Your task to perform on an android device: Go to ESPN.com Image 0: 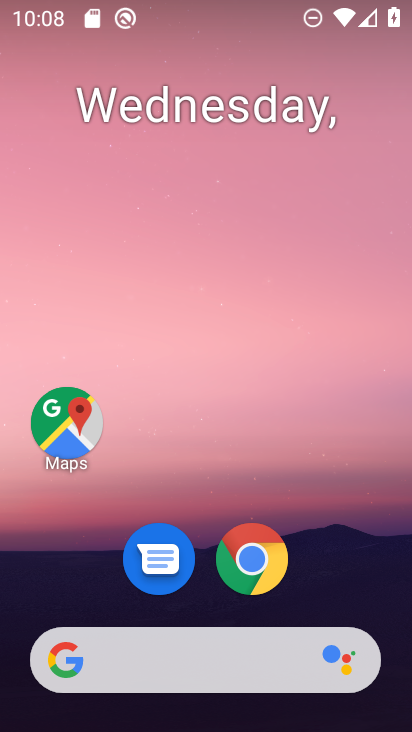
Step 0: drag from (377, 576) to (358, 205)
Your task to perform on an android device: Go to ESPN.com Image 1: 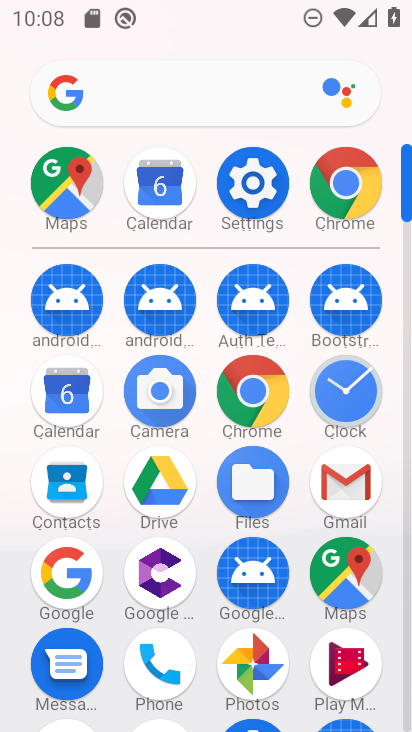
Step 1: click (266, 388)
Your task to perform on an android device: Go to ESPN.com Image 2: 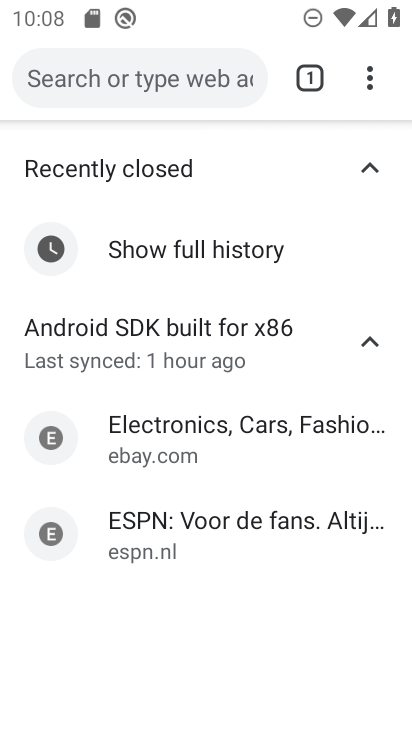
Step 2: click (195, 99)
Your task to perform on an android device: Go to ESPN.com Image 3: 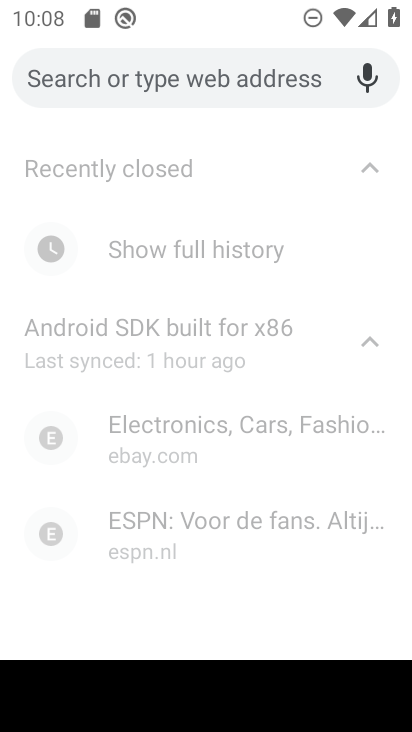
Step 3: type "espn.com"
Your task to perform on an android device: Go to ESPN.com Image 4: 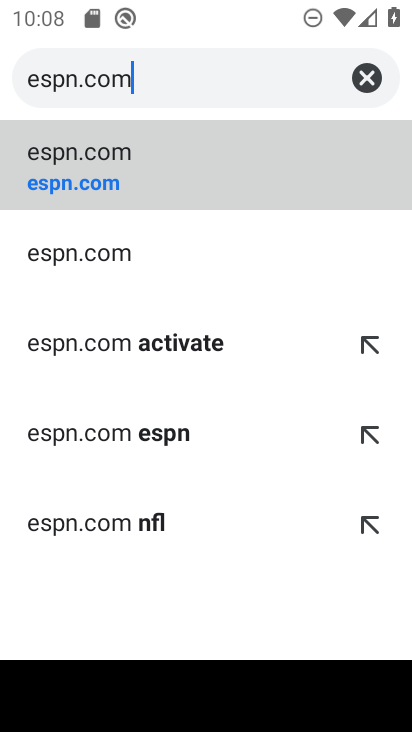
Step 4: click (250, 187)
Your task to perform on an android device: Go to ESPN.com Image 5: 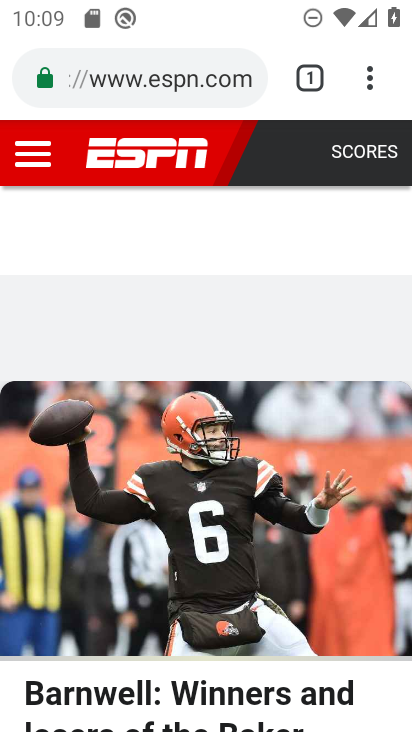
Step 5: task complete